Your task to perform on an android device: change keyboard looks Image 0: 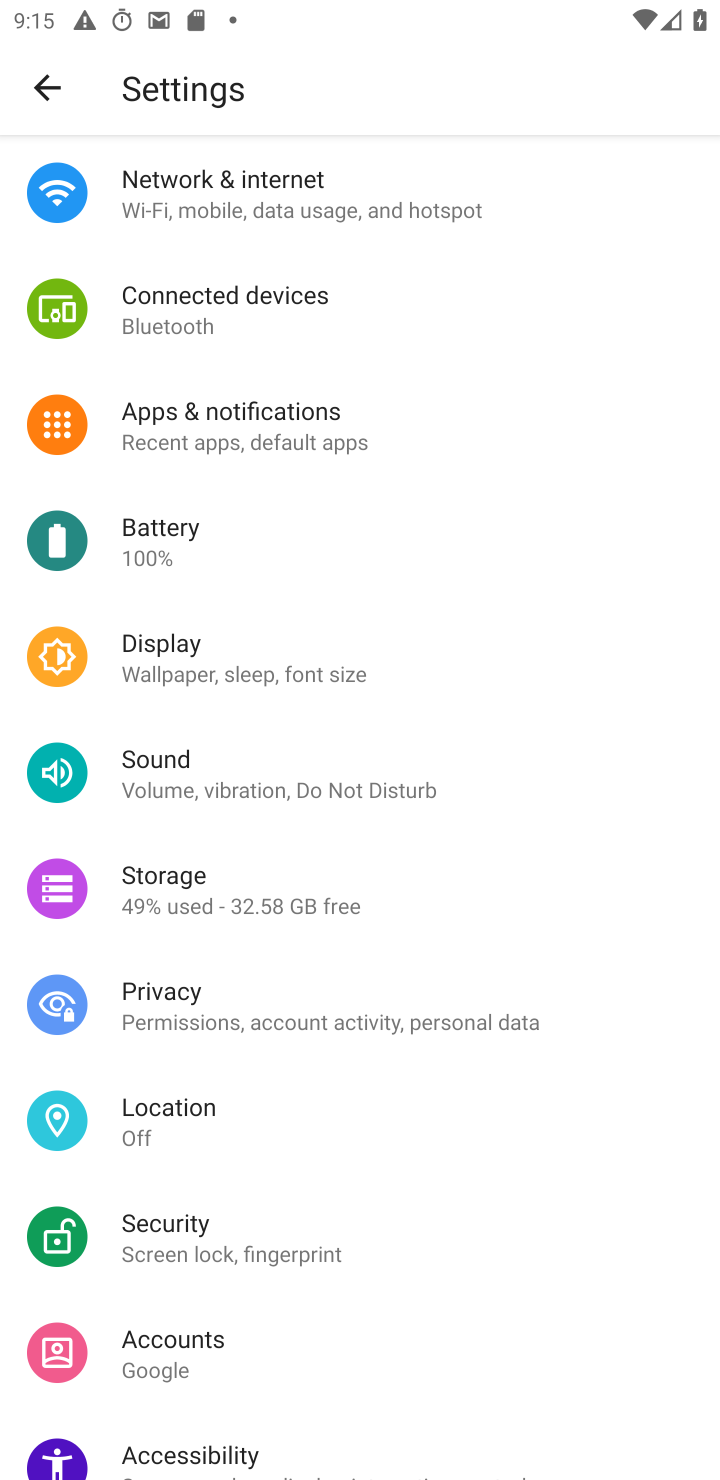
Step 0: drag from (301, 1080) to (347, 714)
Your task to perform on an android device: change keyboard looks Image 1: 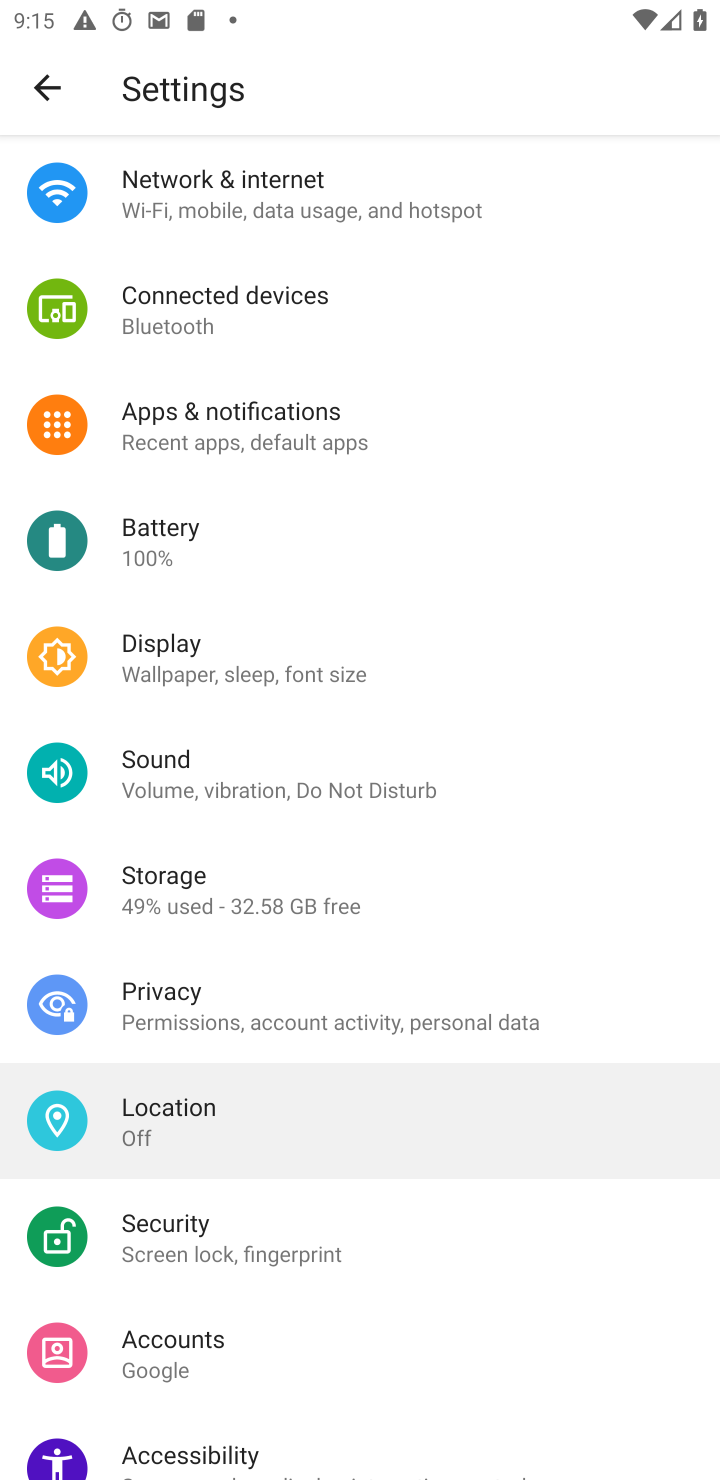
Step 1: drag from (341, 964) to (289, 622)
Your task to perform on an android device: change keyboard looks Image 2: 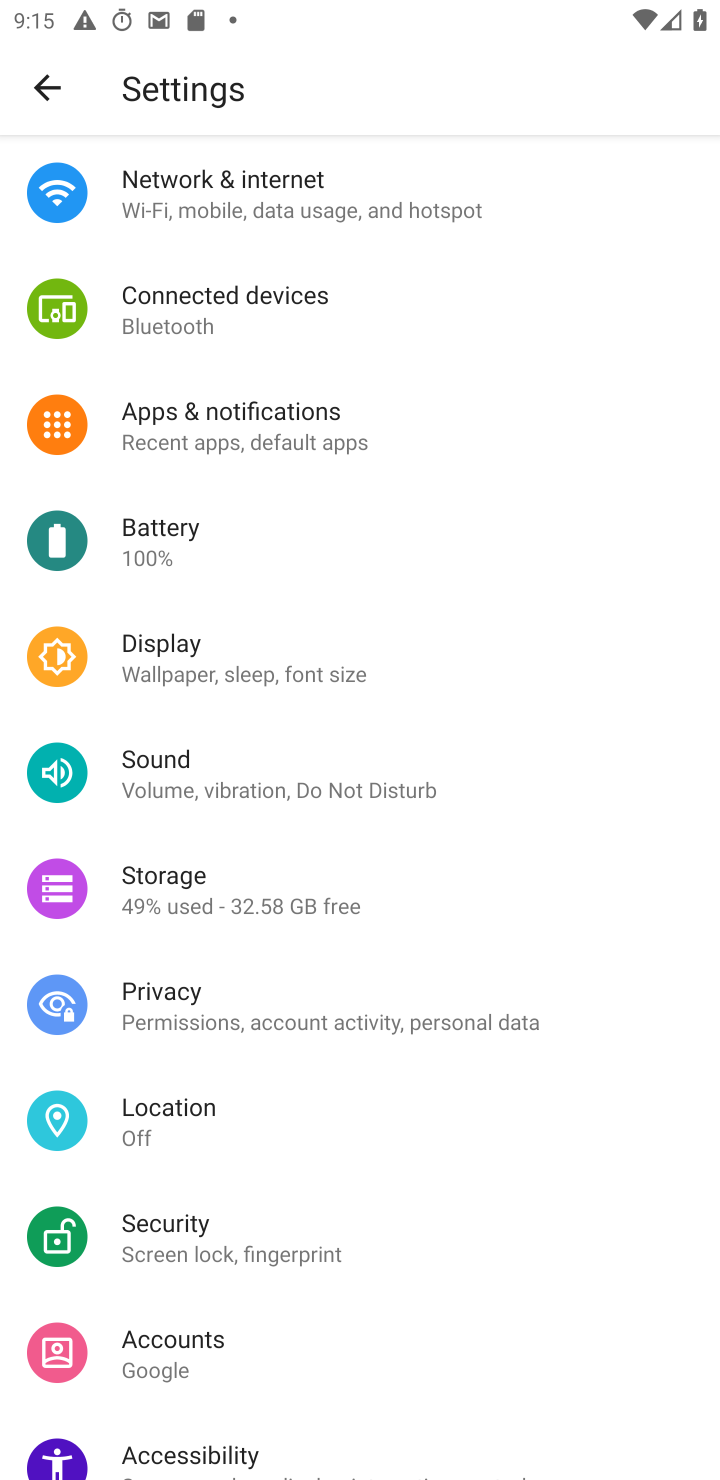
Step 2: drag from (332, 1125) to (302, 733)
Your task to perform on an android device: change keyboard looks Image 3: 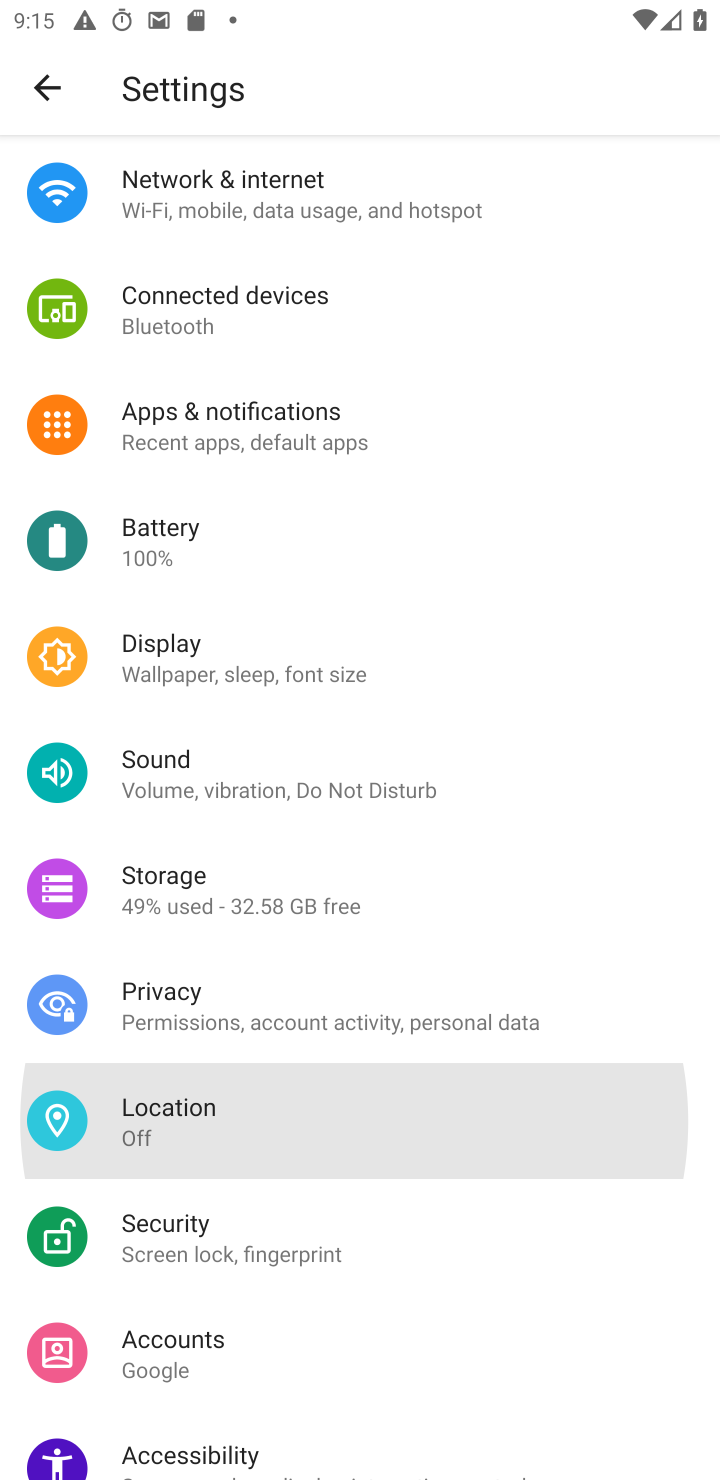
Step 3: drag from (324, 1147) to (324, 824)
Your task to perform on an android device: change keyboard looks Image 4: 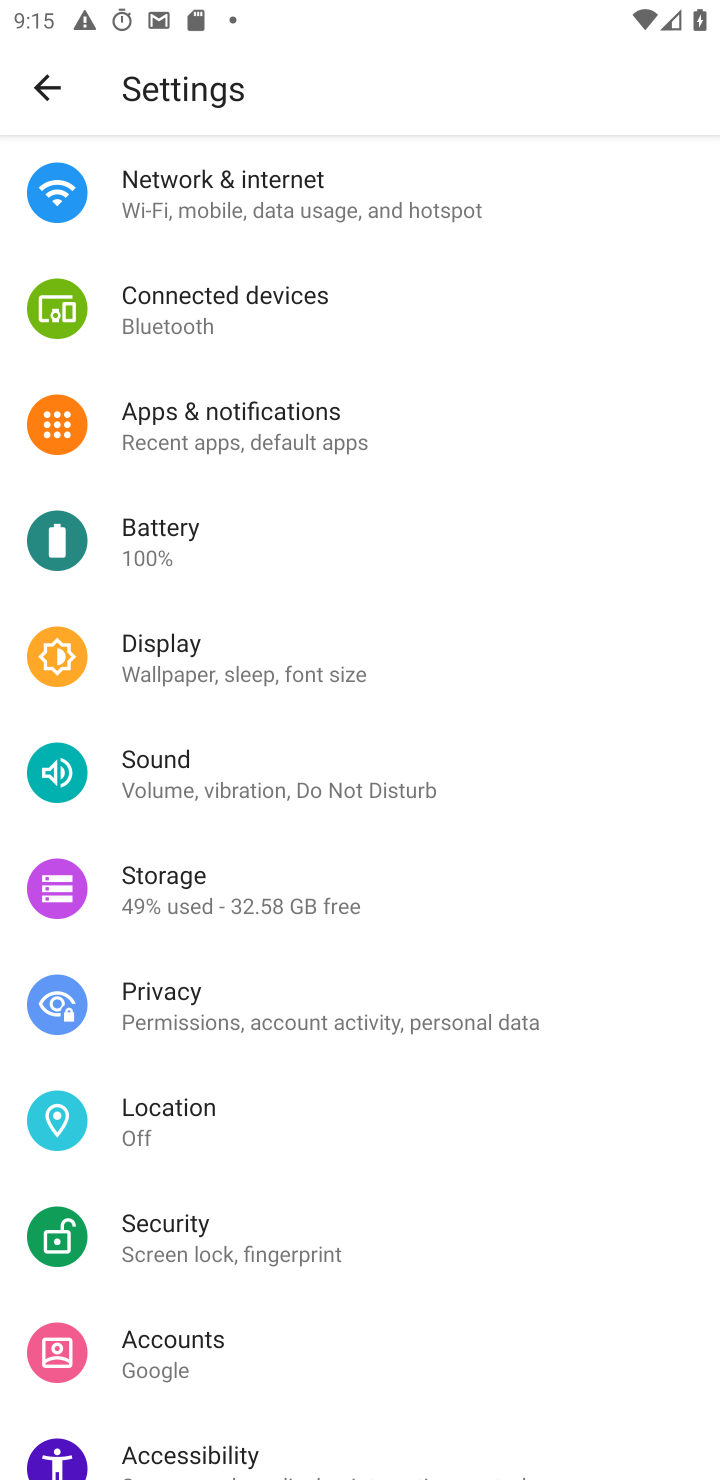
Step 4: drag from (323, 973) to (348, 481)
Your task to perform on an android device: change keyboard looks Image 5: 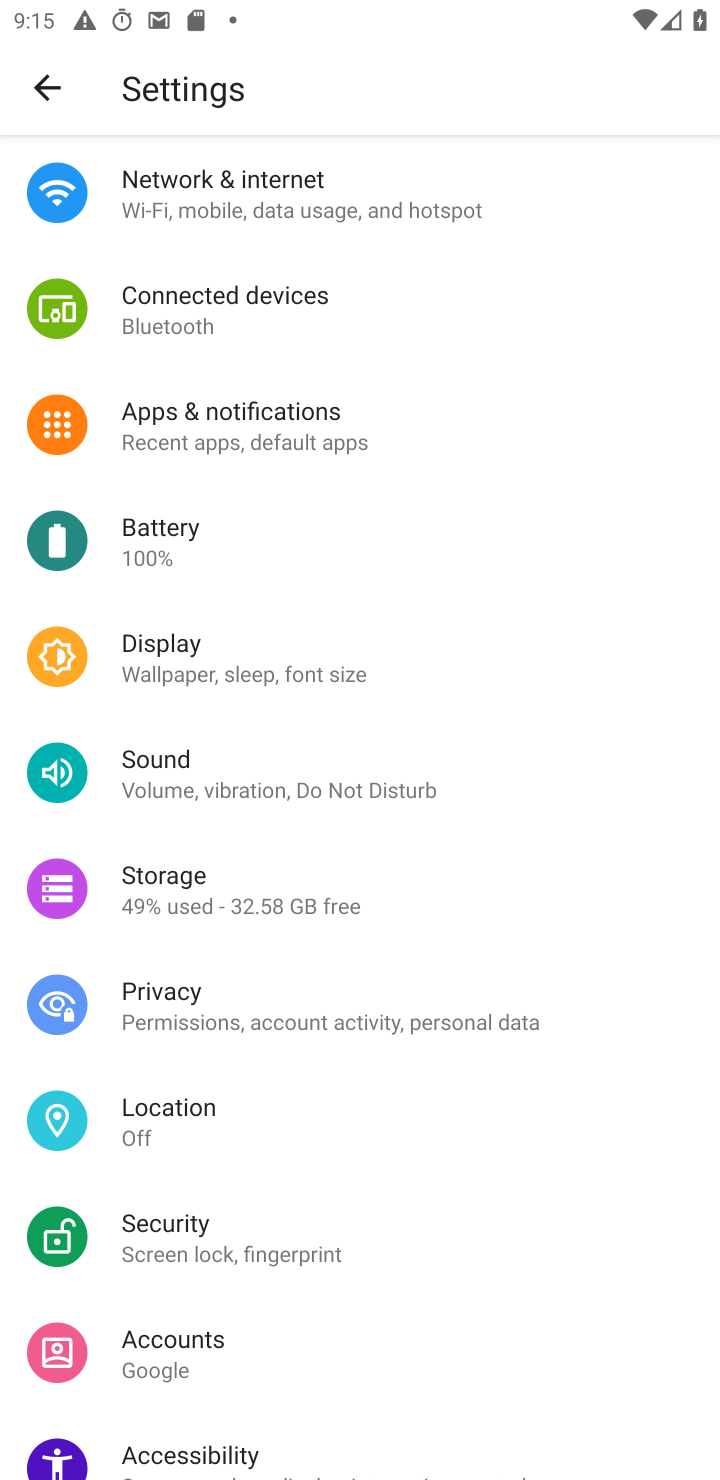
Step 5: drag from (503, 882) to (478, 362)
Your task to perform on an android device: change keyboard looks Image 6: 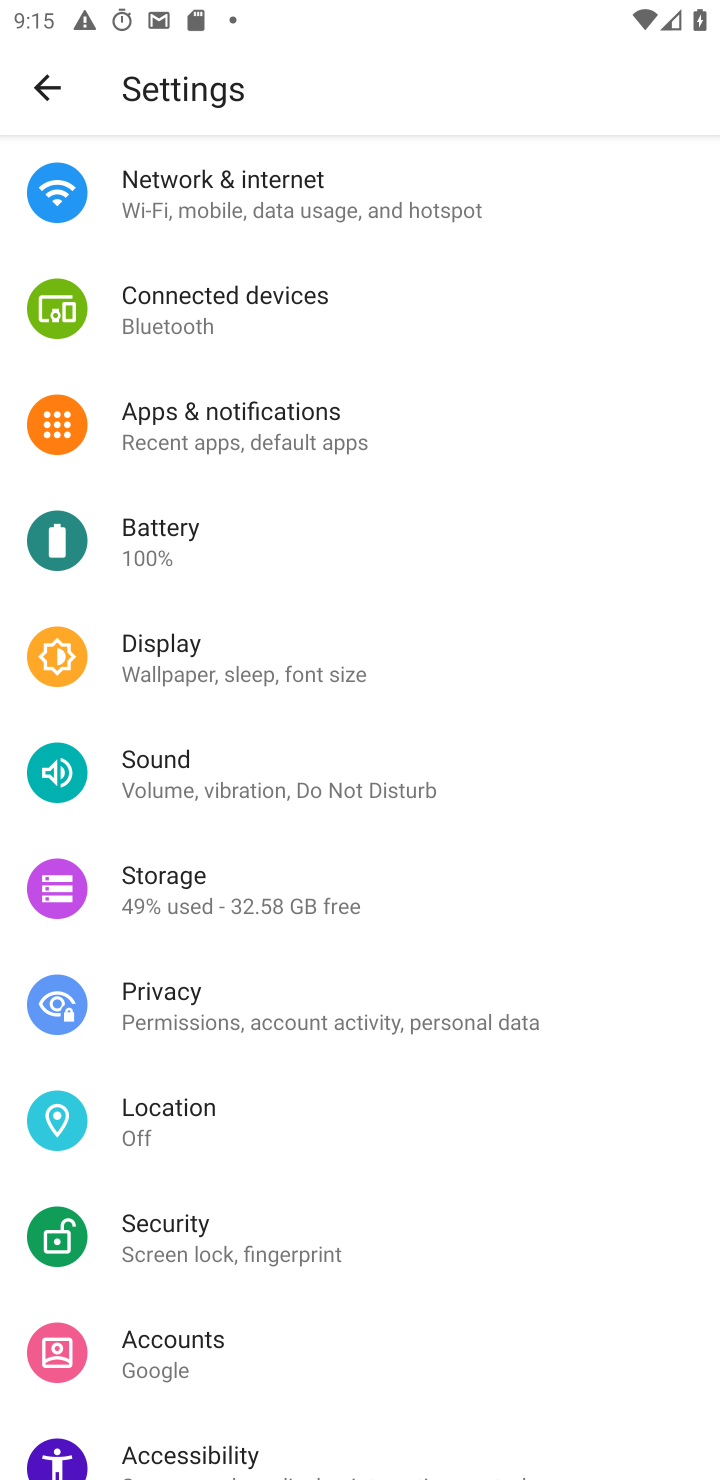
Step 6: drag from (325, 1076) to (253, 532)
Your task to perform on an android device: change keyboard looks Image 7: 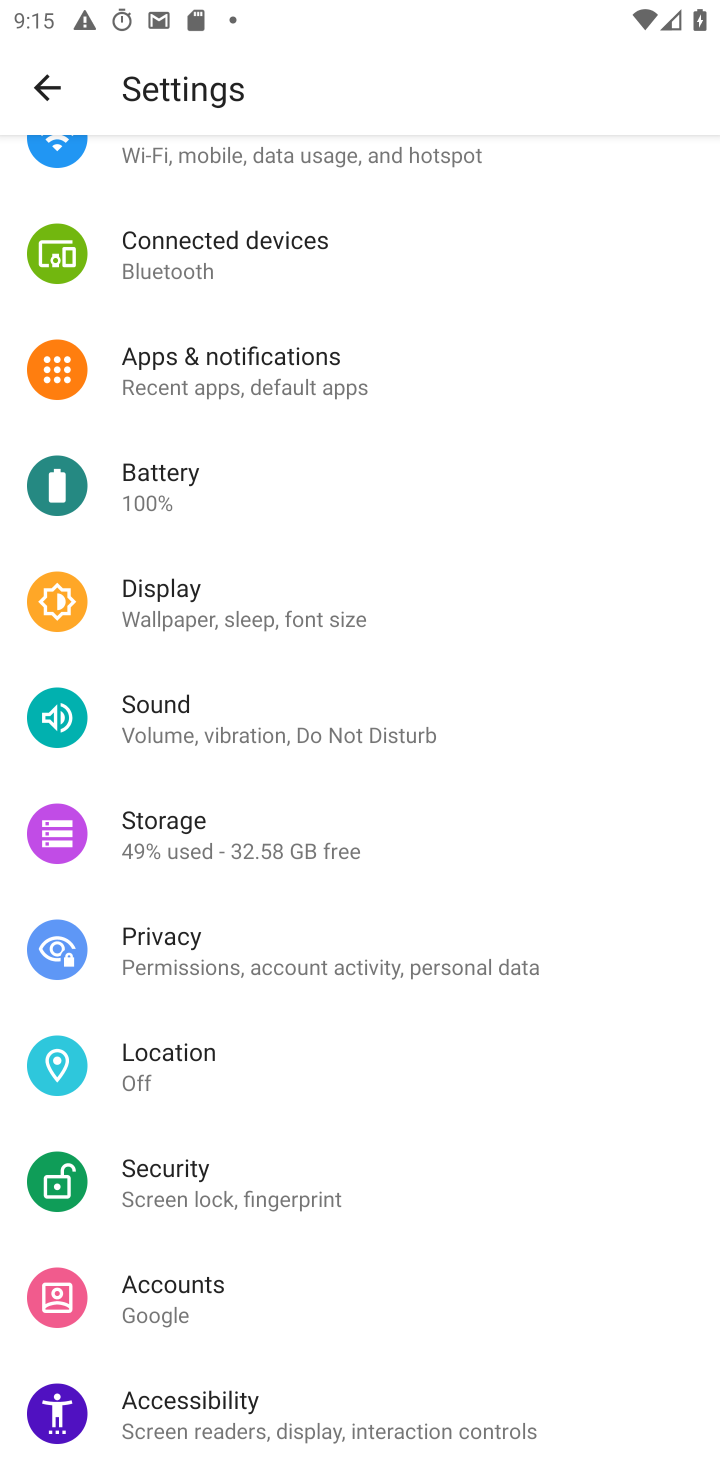
Step 7: drag from (270, 1228) to (96, 559)
Your task to perform on an android device: change keyboard looks Image 8: 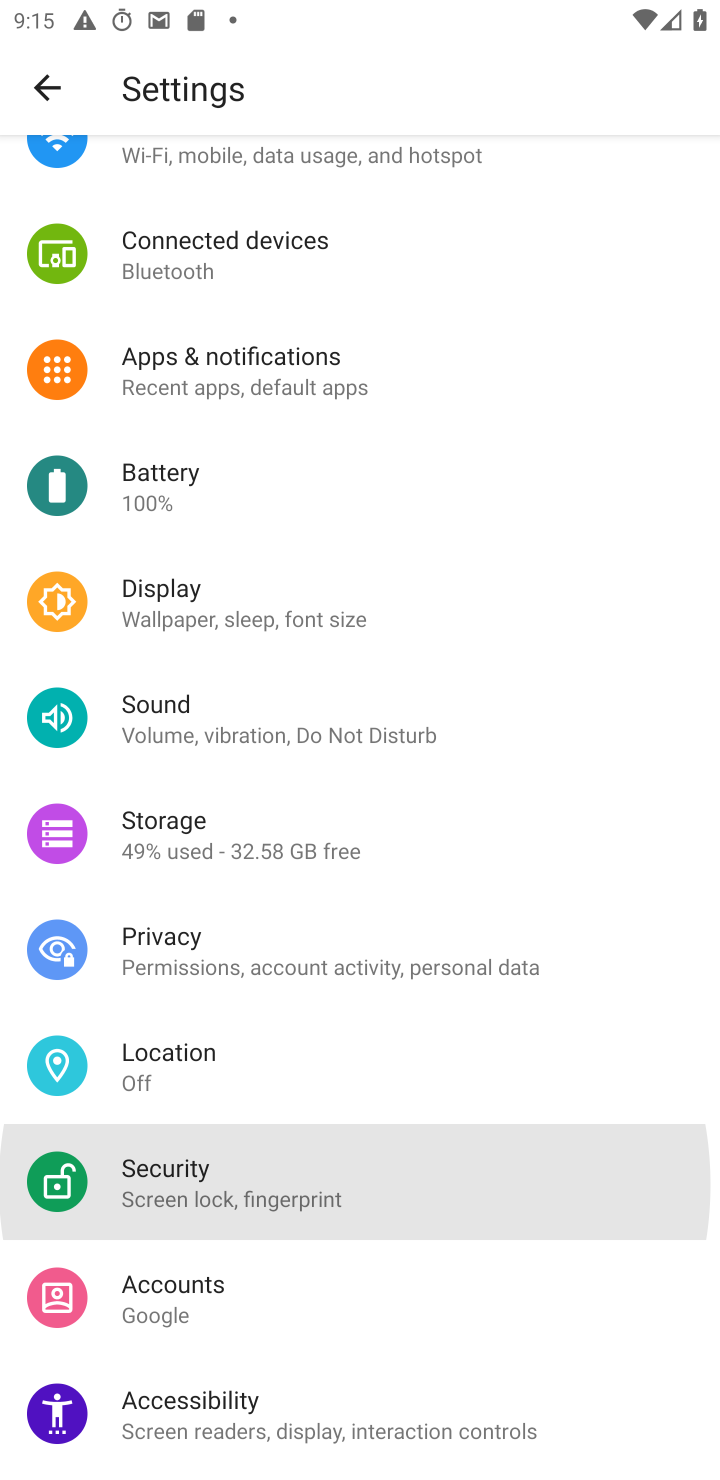
Step 8: click (391, 589)
Your task to perform on an android device: change keyboard looks Image 9: 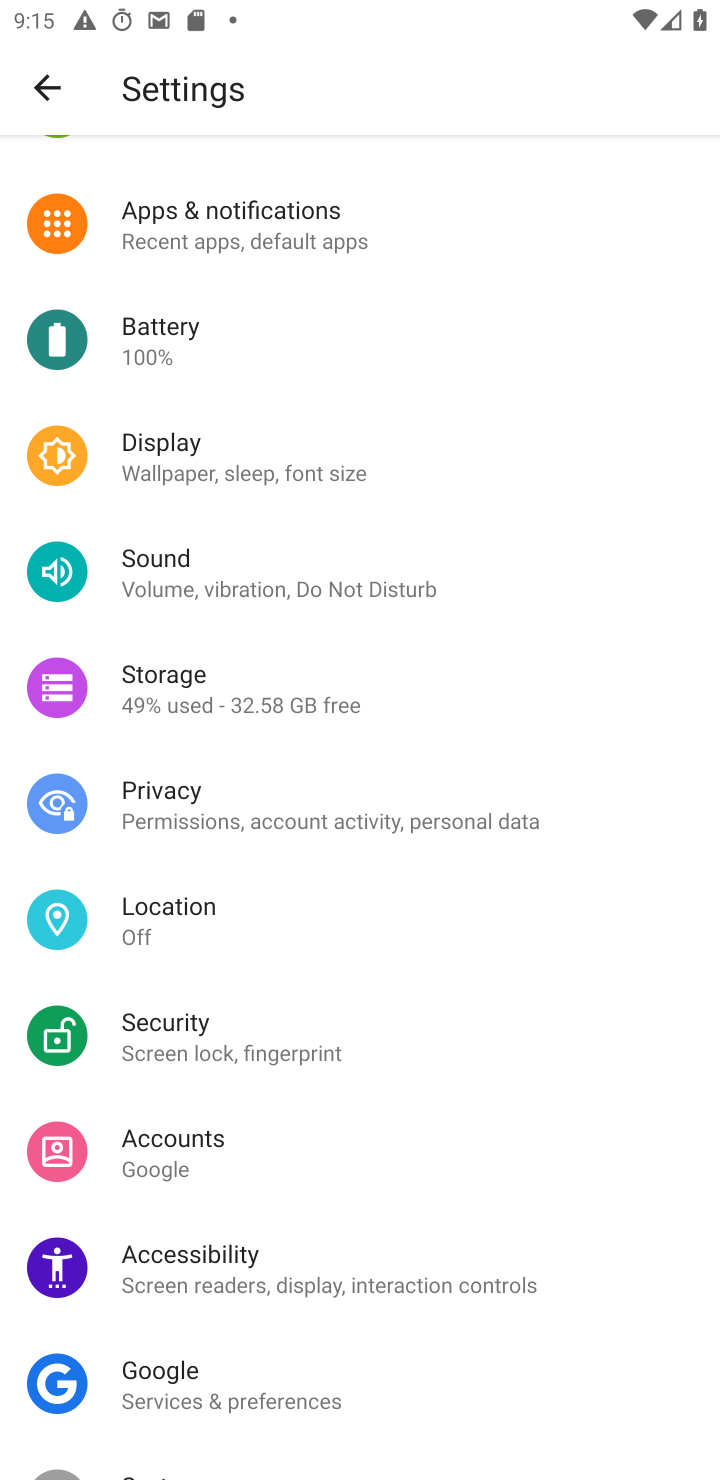
Step 9: drag from (241, 1262) to (190, 445)
Your task to perform on an android device: change keyboard looks Image 10: 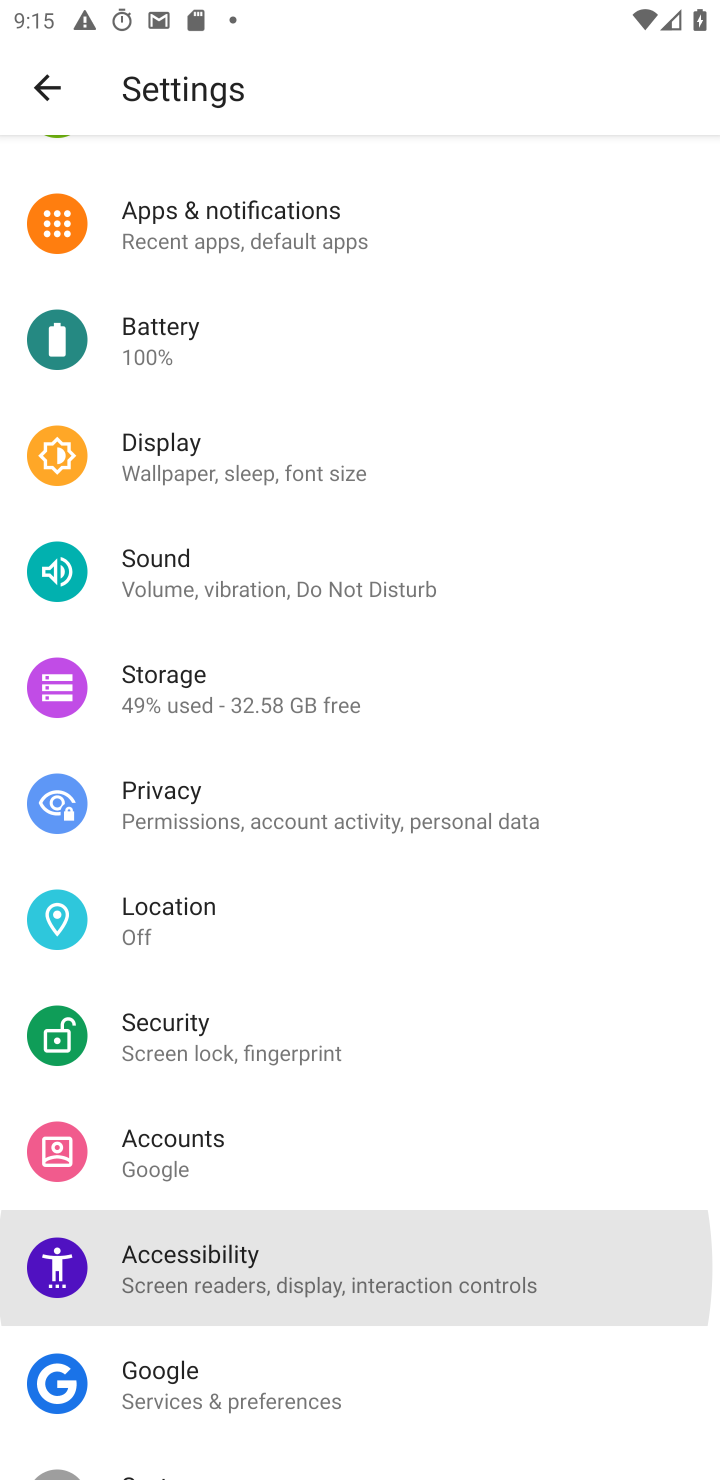
Step 10: drag from (384, 1092) to (368, 624)
Your task to perform on an android device: change keyboard looks Image 11: 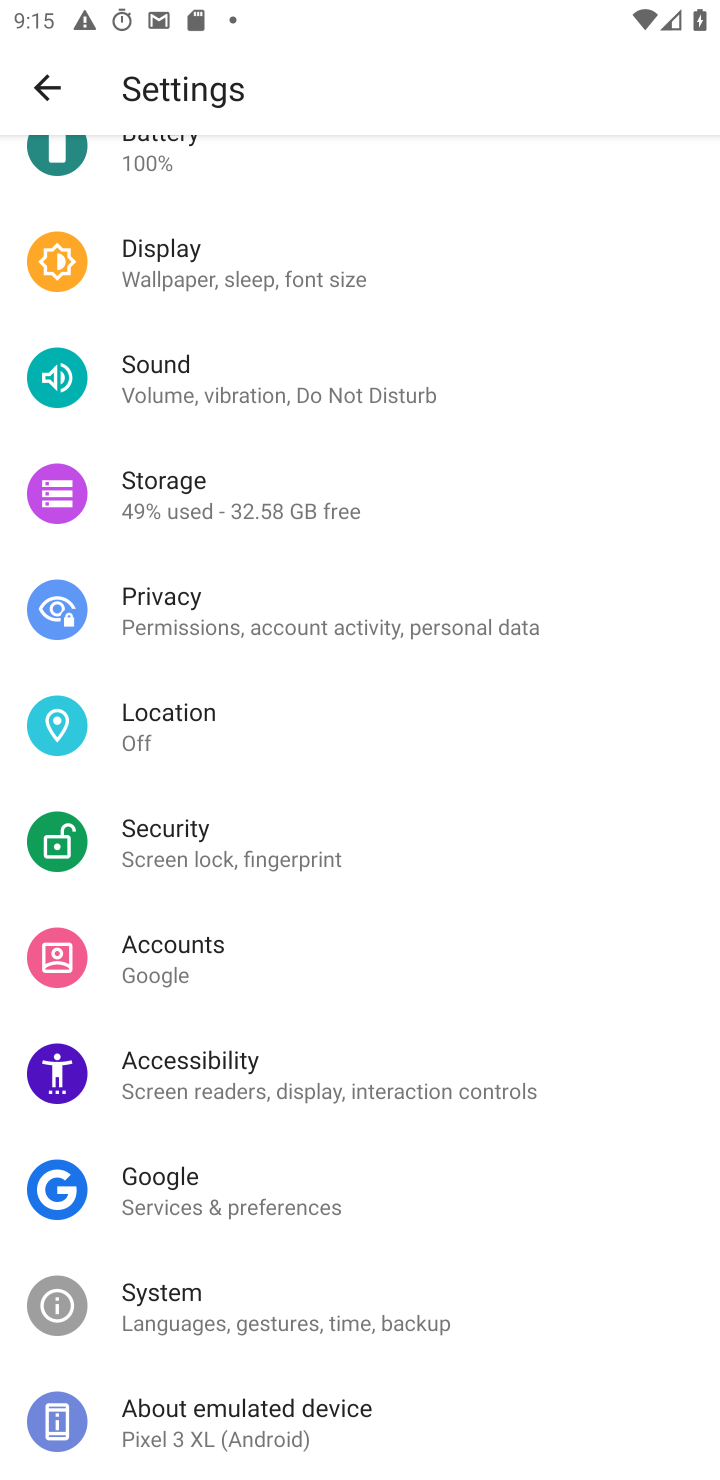
Step 11: click (165, 1315)
Your task to perform on an android device: change keyboard looks Image 12: 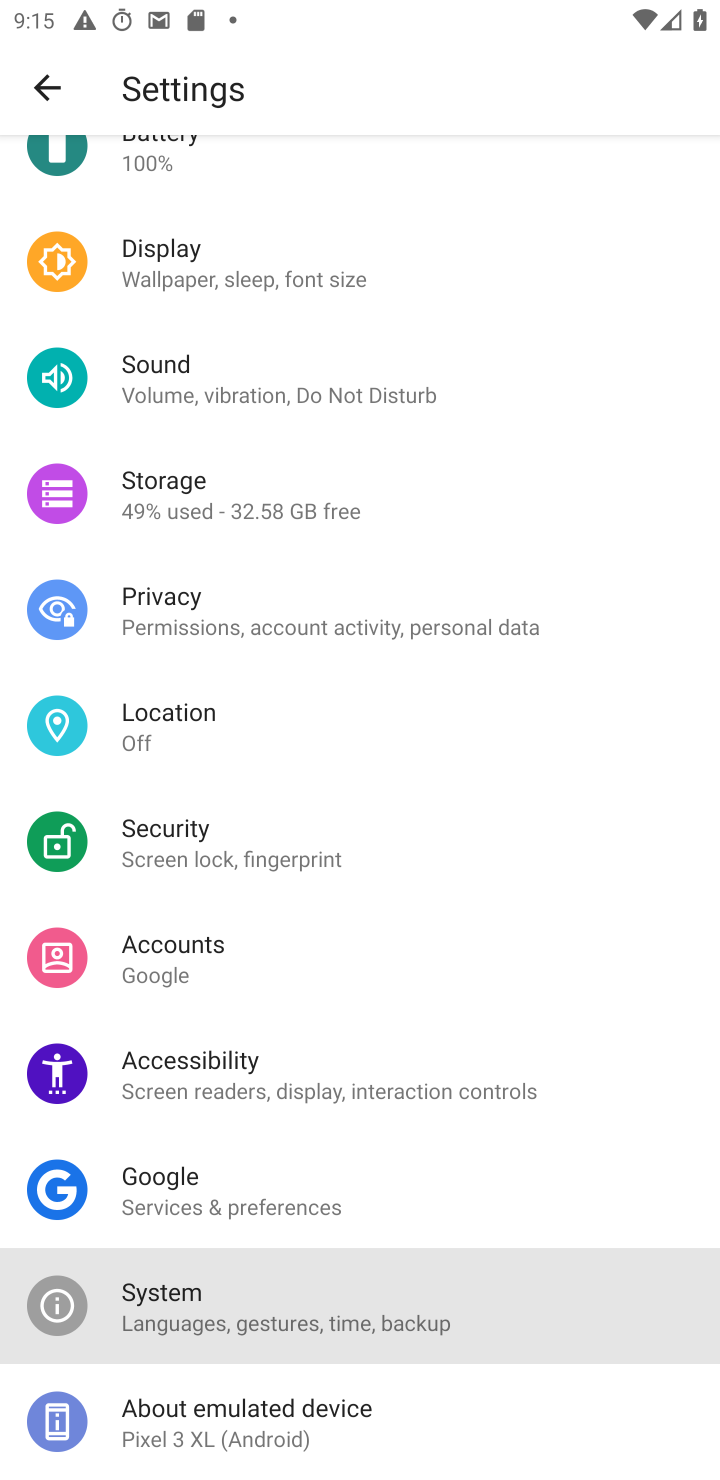
Step 12: click (174, 1311)
Your task to perform on an android device: change keyboard looks Image 13: 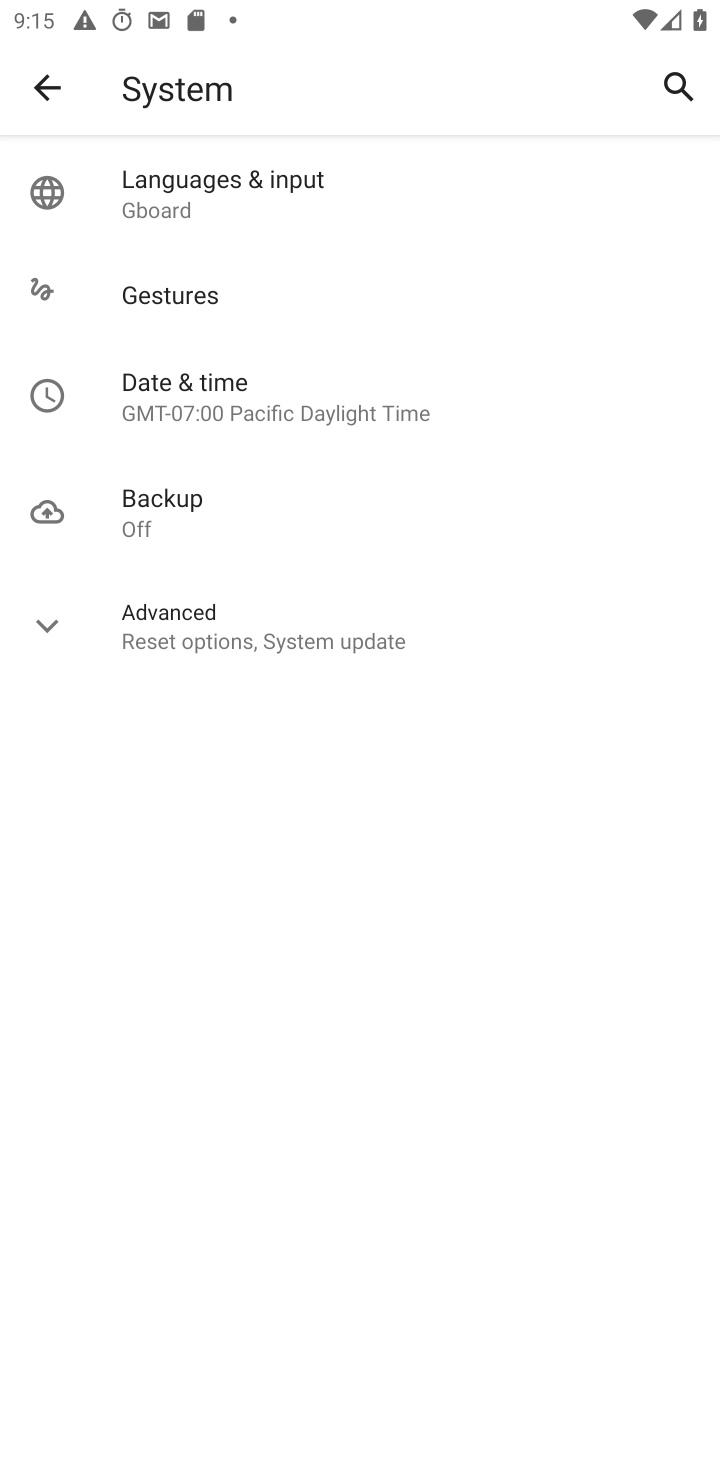
Step 13: click (165, 202)
Your task to perform on an android device: change keyboard looks Image 14: 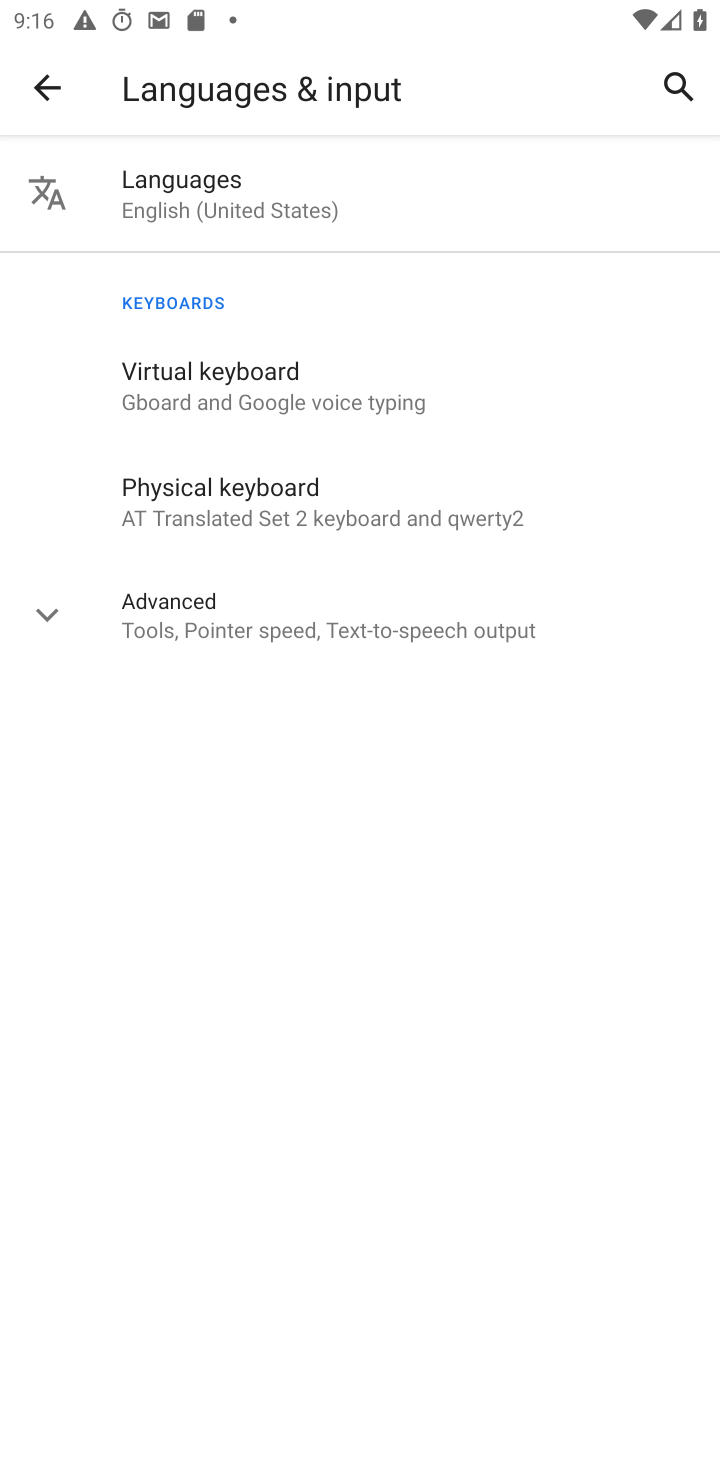
Step 14: click (181, 389)
Your task to perform on an android device: change keyboard looks Image 15: 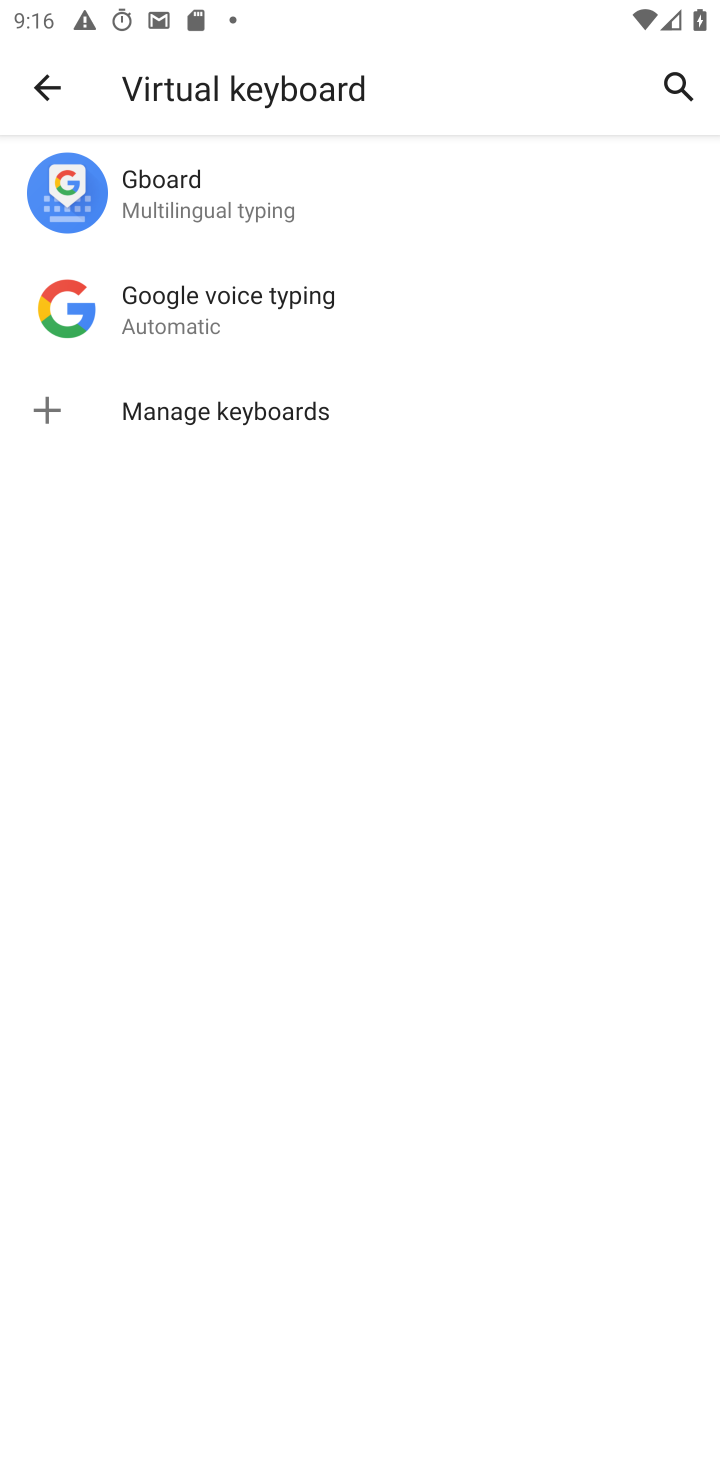
Step 15: click (151, 183)
Your task to perform on an android device: change keyboard looks Image 16: 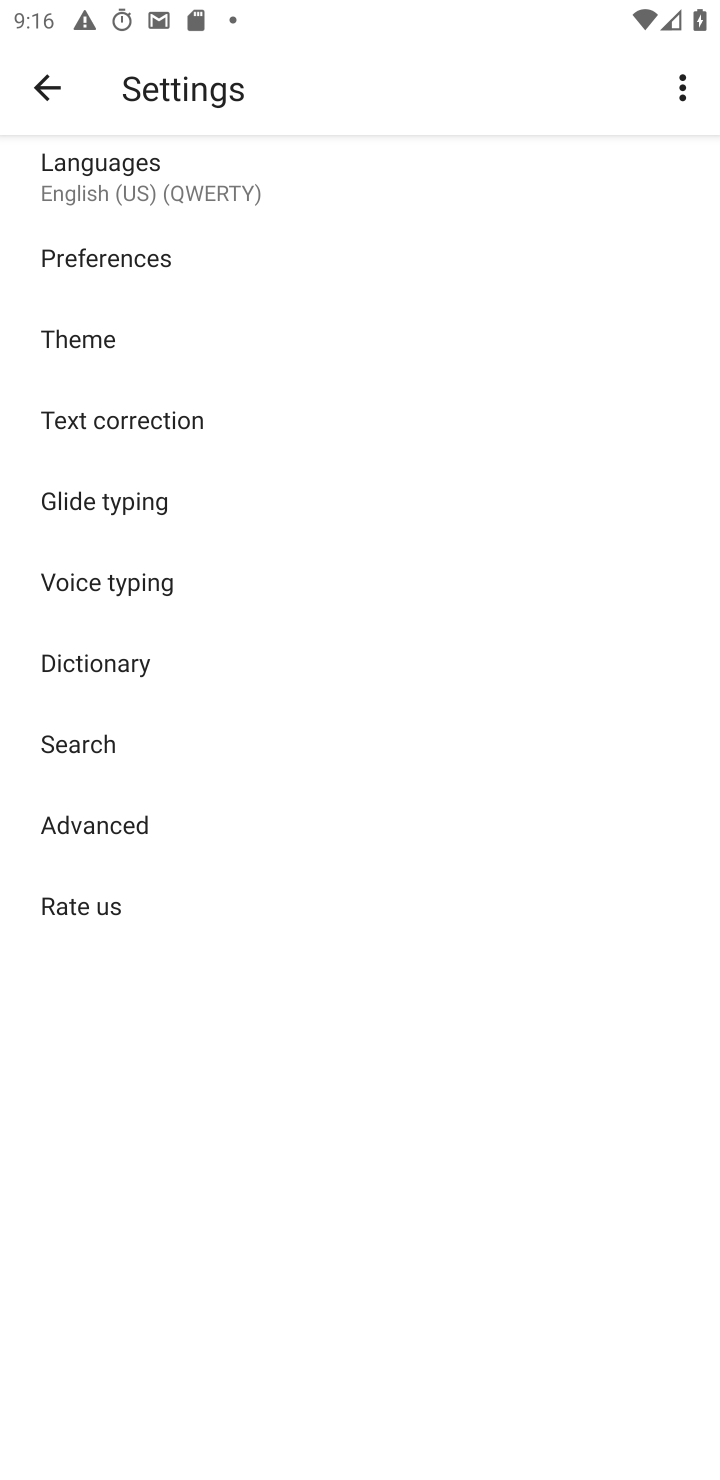
Step 16: click (78, 328)
Your task to perform on an android device: change keyboard looks Image 17: 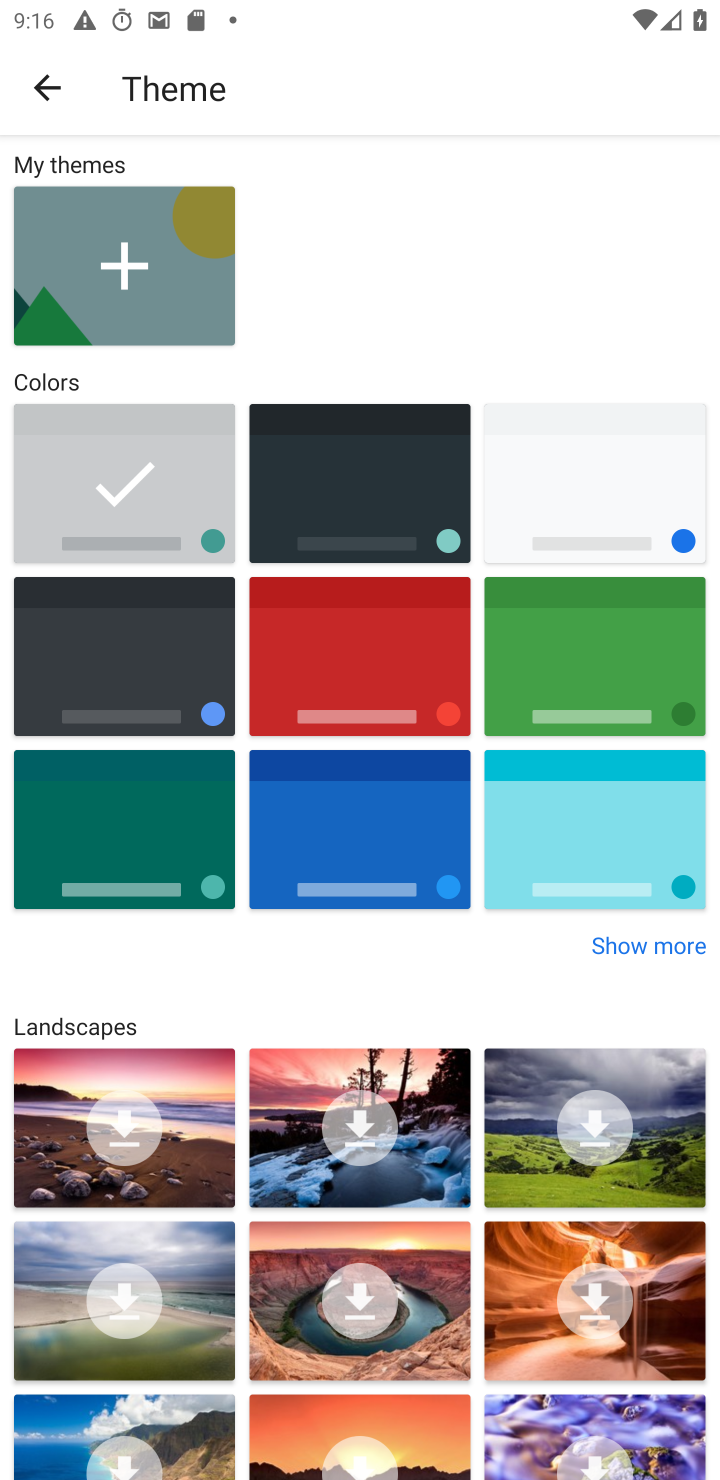
Step 17: click (150, 620)
Your task to perform on an android device: change keyboard looks Image 18: 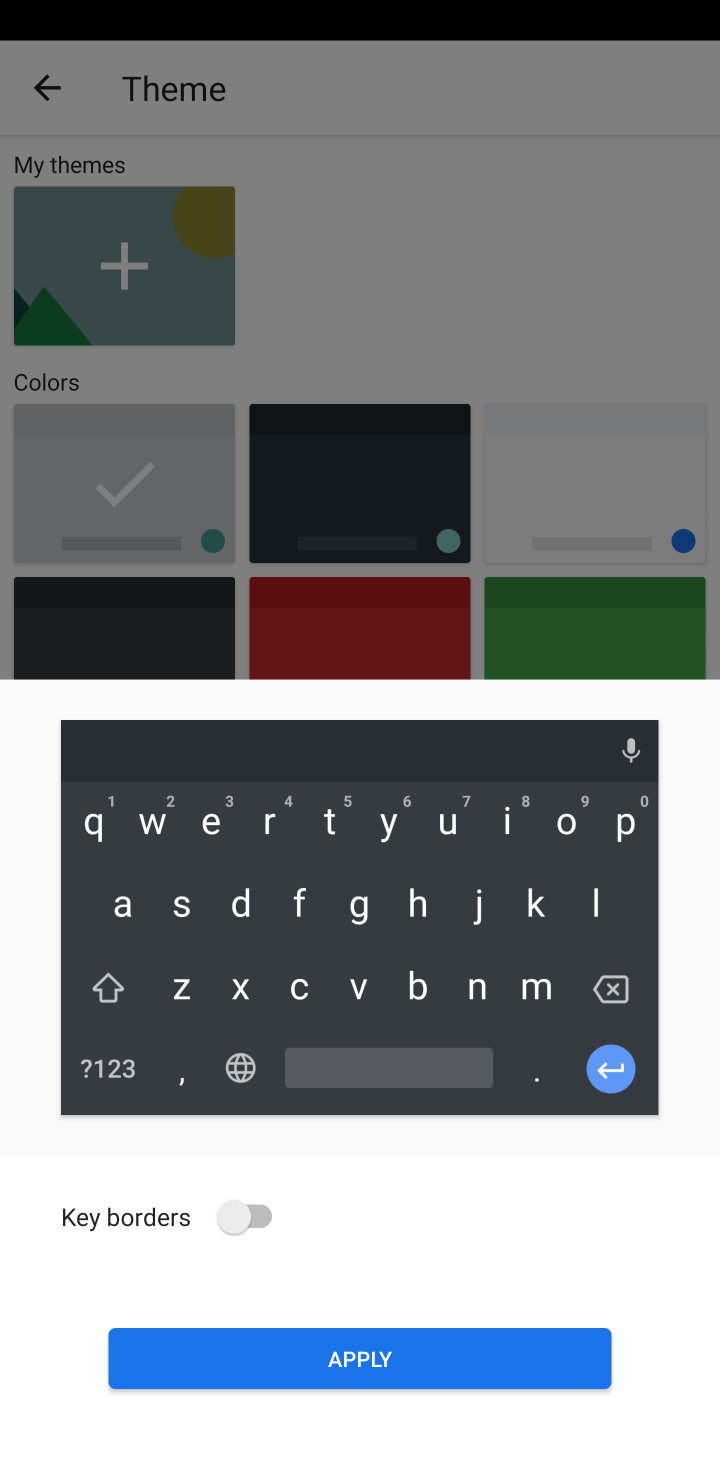
Step 18: click (371, 1358)
Your task to perform on an android device: change keyboard looks Image 19: 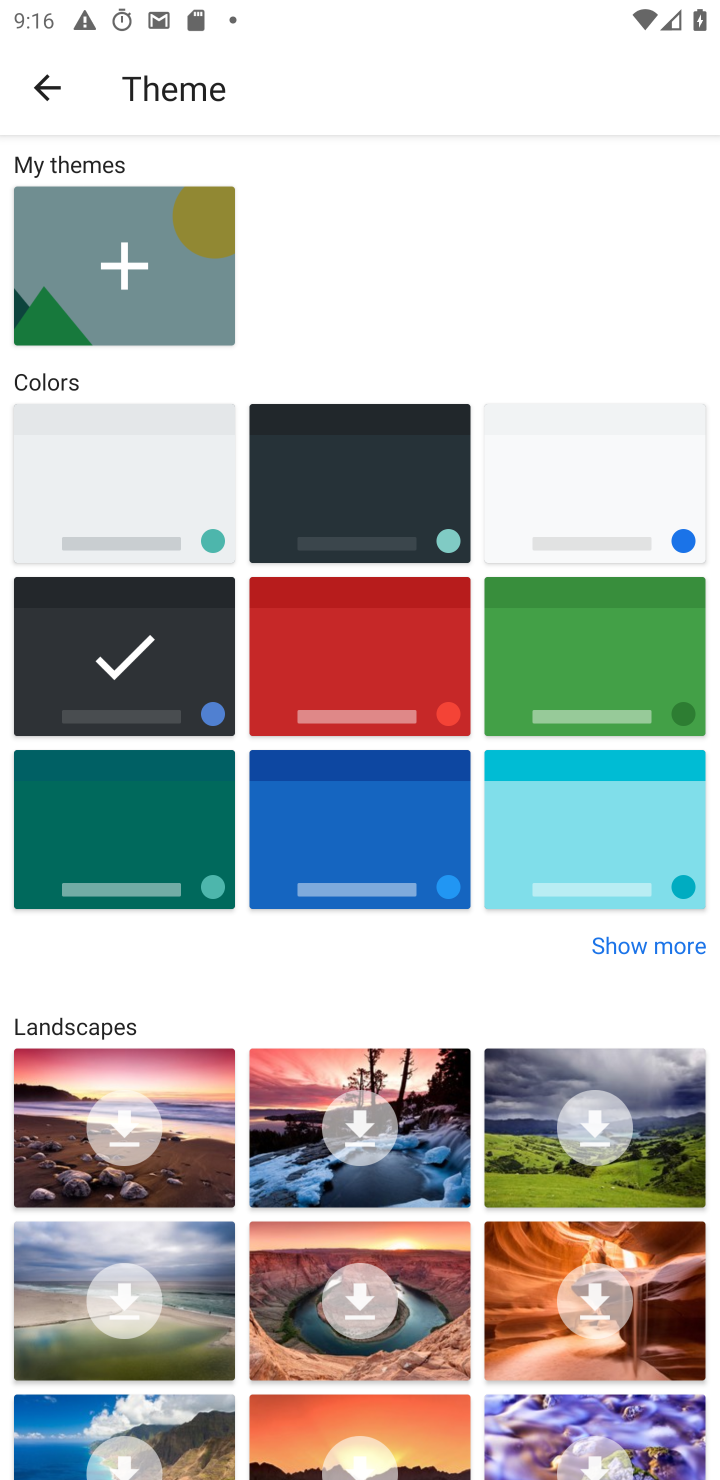
Step 19: task complete